Your task to perform on an android device: Open Wikipedia Image 0: 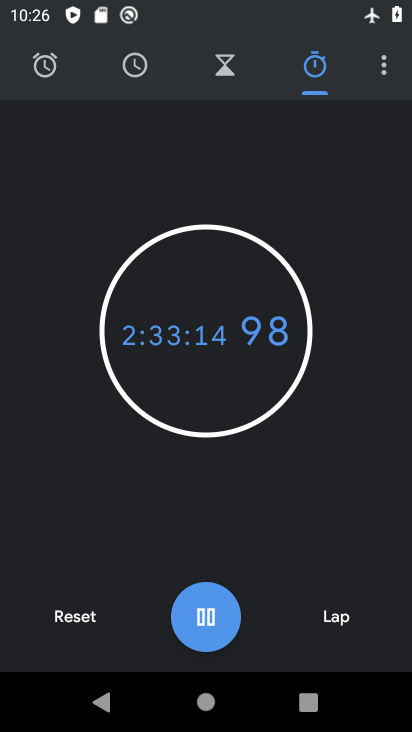
Step 0: press home button
Your task to perform on an android device: Open Wikipedia Image 1: 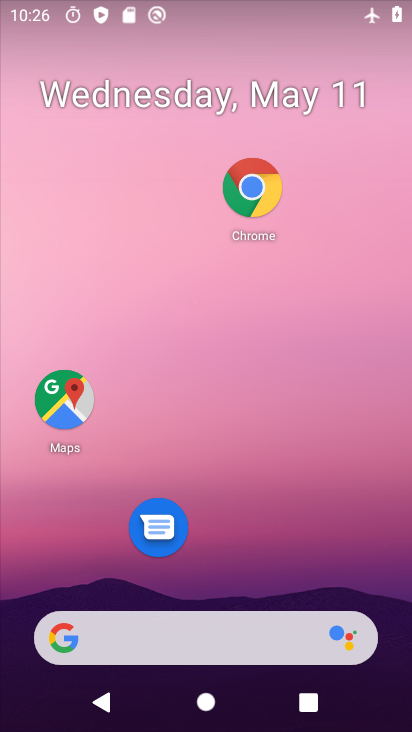
Step 1: drag from (246, 587) to (266, 72)
Your task to perform on an android device: Open Wikipedia Image 2: 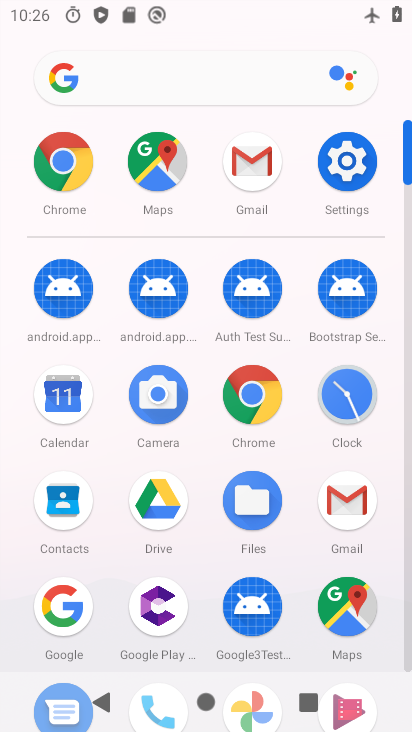
Step 2: click (64, 183)
Your task to perform on an android device: Open Wikipedia Image 3: 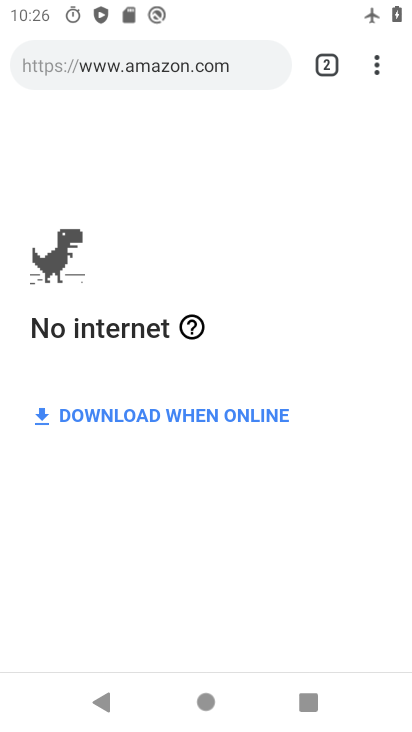
Step 3: click (156, 93)
Your task to perform on an android device: Open Wikipedia Image 4: 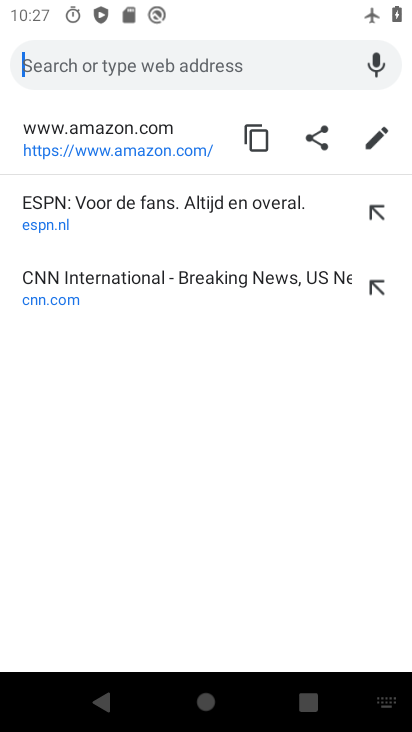
Step 4: task complete